Your task to perform on an android device: clear history in the chrome app Image 0: 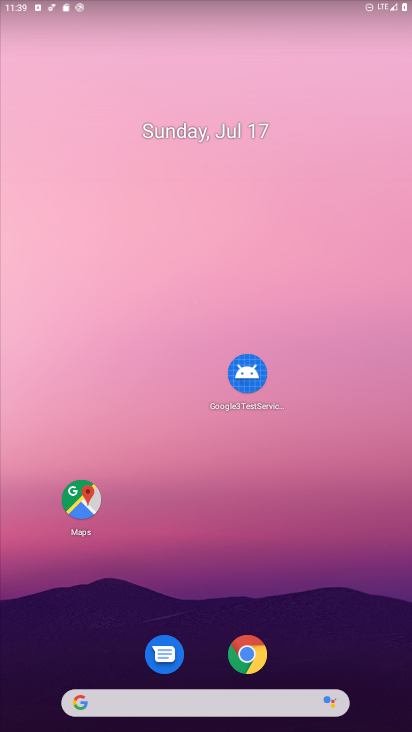
Step 0: click (261, 647)
Your task to perform on an android device: clear history in the chrome app Image 1: 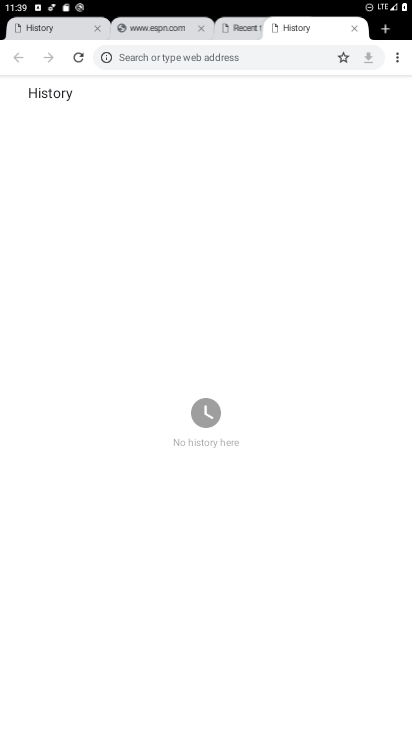
Step 1: click (400, 57)
Your task to perform on an android device: clear history in the chrome app Image 2: 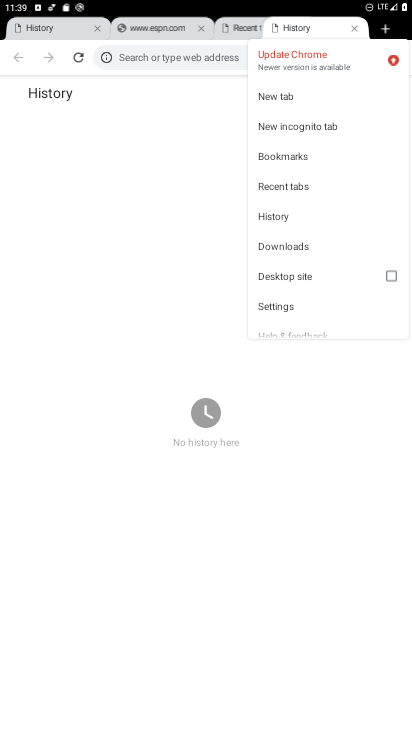
Step 2: click (310, 216)
Your task to perform on an android device: clear history in the chrome app Image 3: 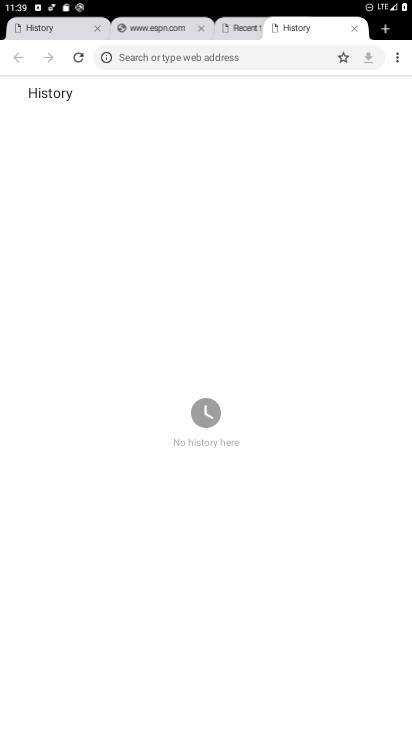
Step 3: task complete